Your task to perform on an android device: Go to eBay Image 0: 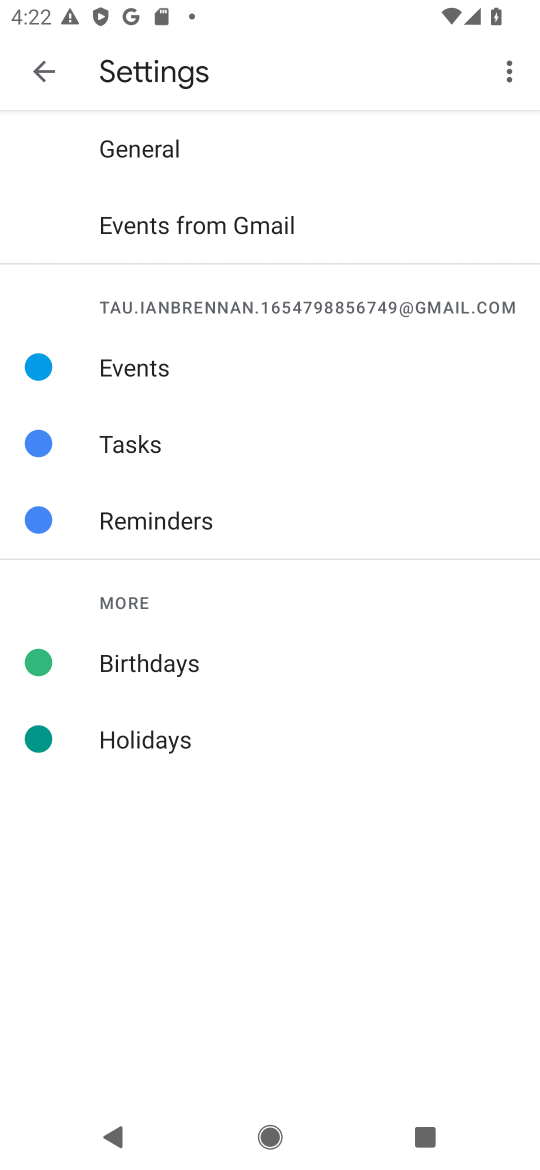
Step 0: press home button
Your task to perform on an android device: Go to eBay Image 1: 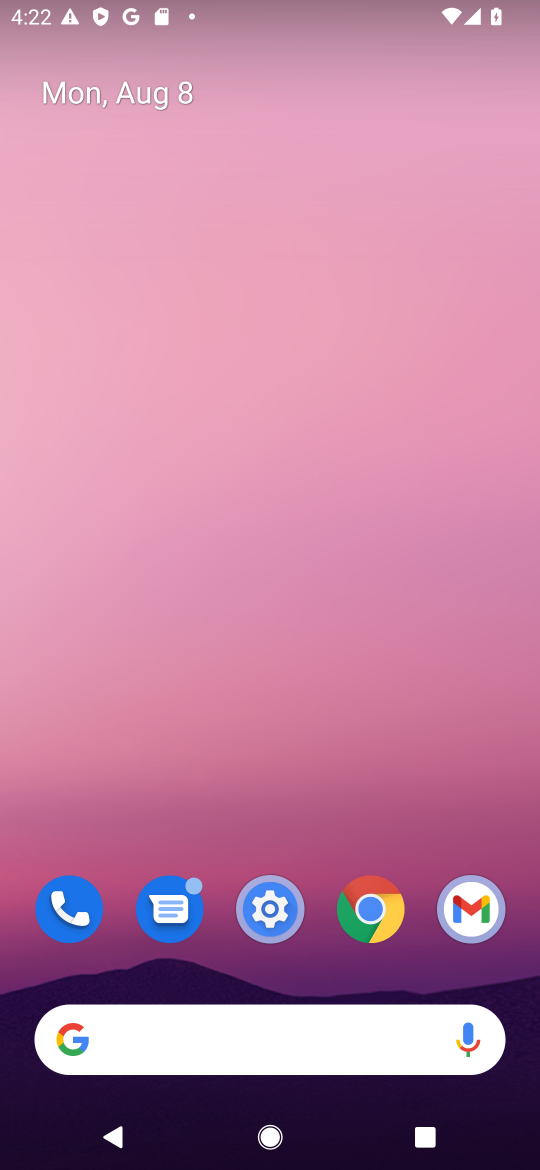
Step 1: click (376, 905)
Your task to perform on an android device: Go to eBay Image 2: 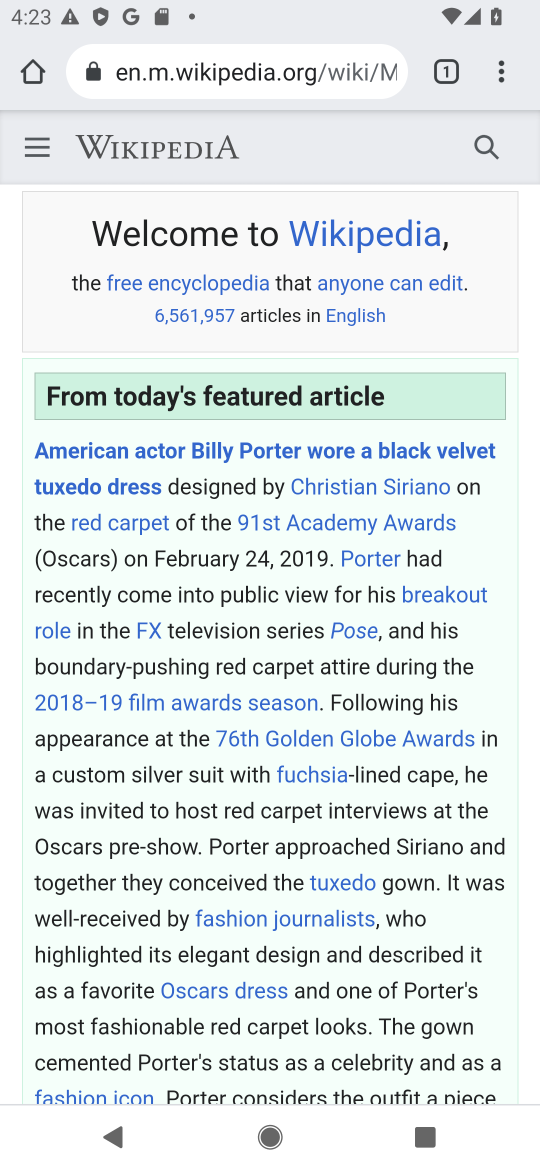
Step 2: drag from (499, 63) to (350, 134)
Your task to perform on an android device: Go to eBay Image 3: 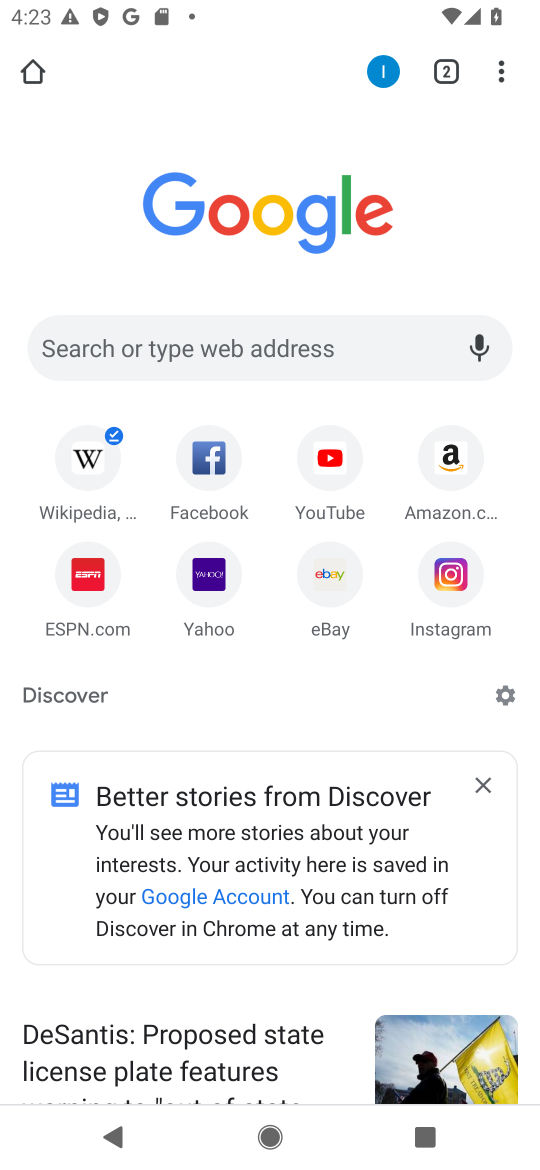
Step 3: click (325, 577)
Your task to perform on an android device: Go to eBay Image 4: 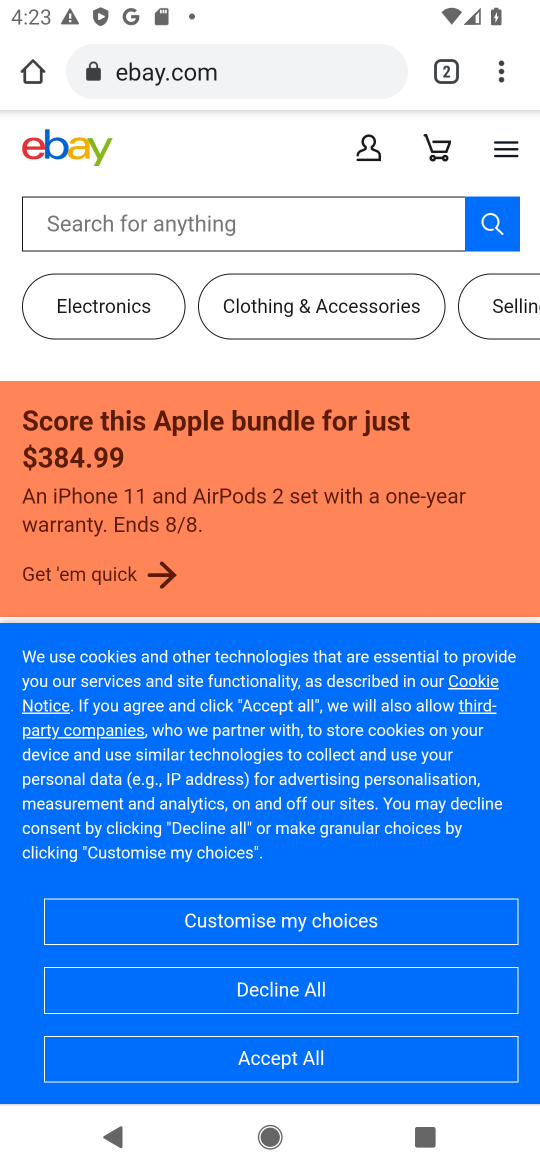
Step 4: task complete